Your task to perform on an android device: choose inbox layout in the gmail app Image 0: 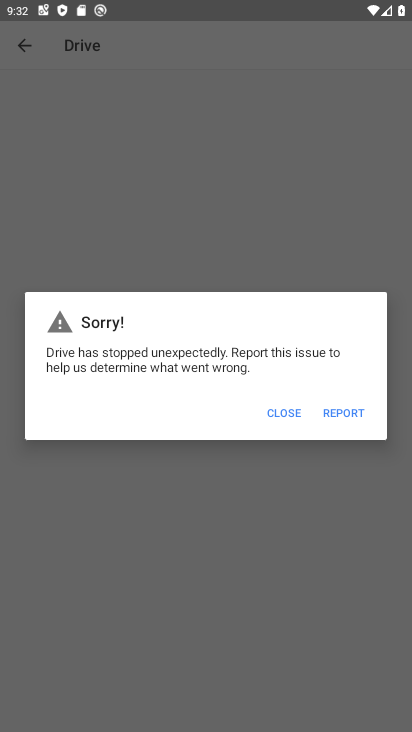
Step 0: press home button
Your task to perform on an android device: choose inbox layout in the gmail app Image 1: 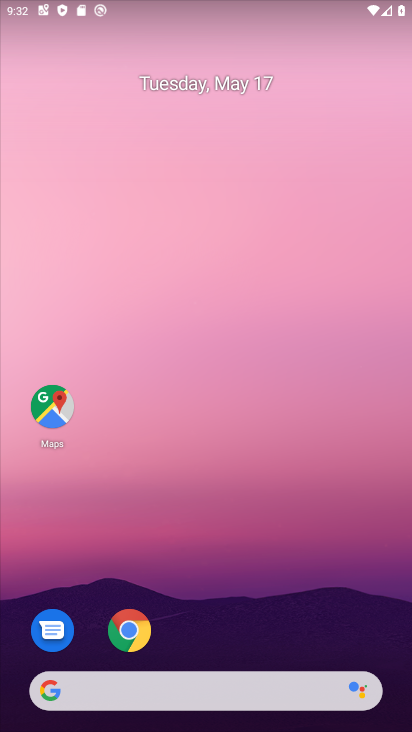
Step 1: drag from (211, 607) to (185, 410)
Your task to perform on an android device: choose inbox layout in the gmail app Image 2: 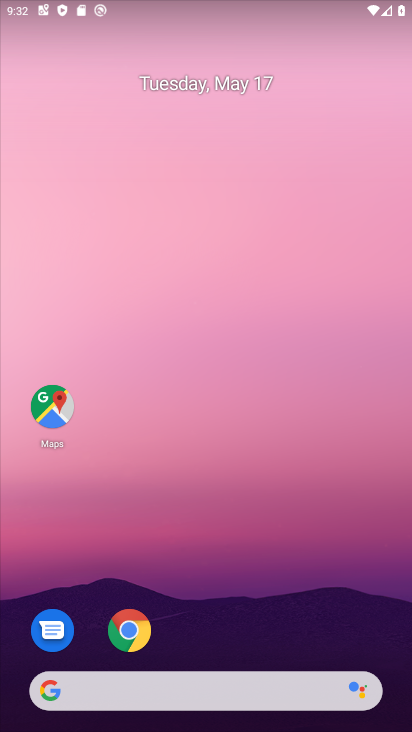
Step 2: drag from (275, 644) to (312, 173)
Your task to perform on an android device: choose inbox layout in the gmail app Image 3: 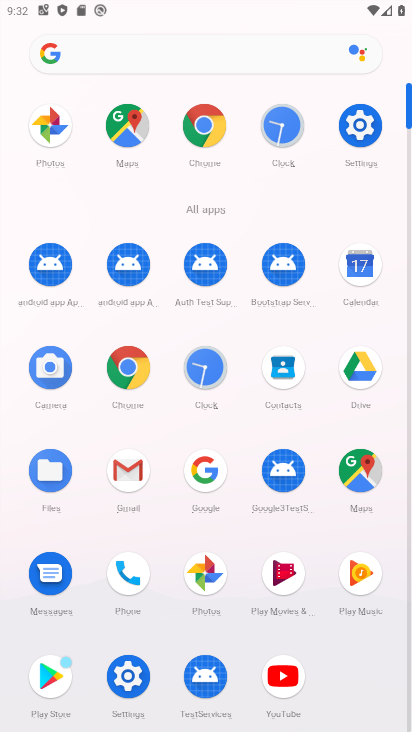
Step 3: click (120, 480)
Your task to perform on an android device: choose inbox layout in the gmail app Image 4: 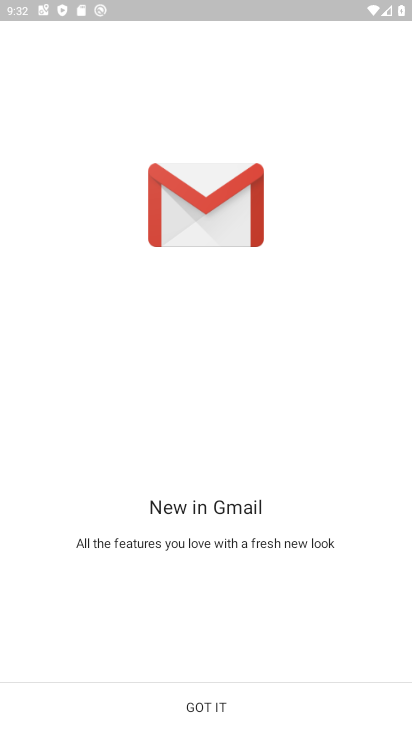
Step 4: click (233, 705)
Your task to perform on an android device: choose inbox layout in the gmail app Image 5: 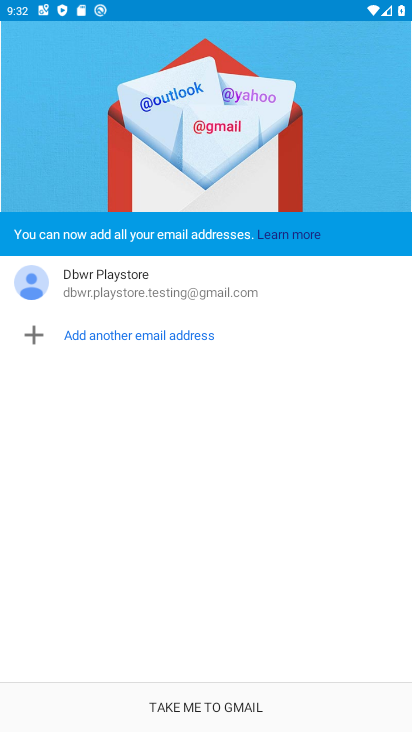
Step 5: click (202, 709)
Your task to perform on an android device: choose inbox layout in the gmail app Image 6: 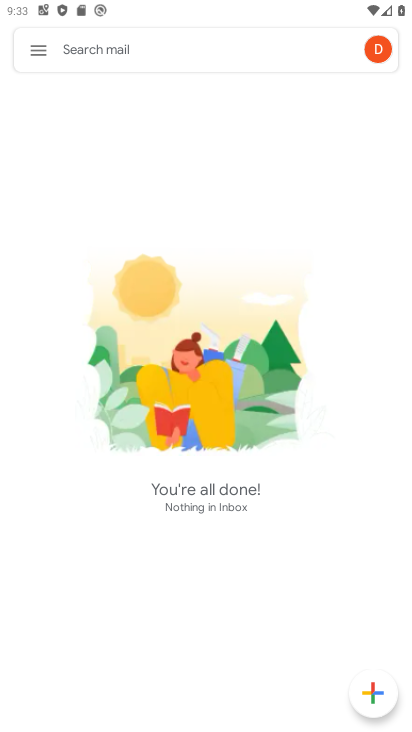
Step 6: click (36, 49)
Your task to perform on an android device: choose inbox layout in the gmail app Image 7: 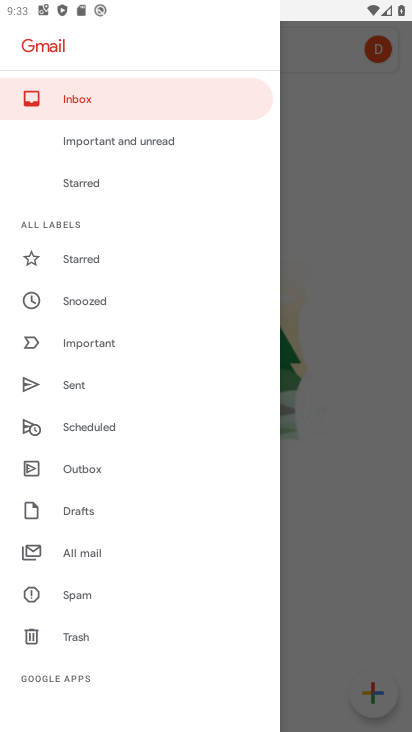
Step 7: drag from (119, 645) to (124, 410)
Your task to perform on an android device: choose inbox layout in the gmail app Image 8: 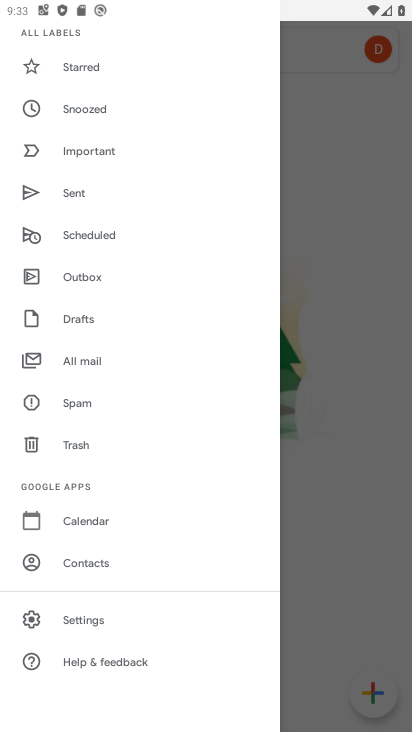
Step 8: click (83, 621)
Your task to perform on an android device: choose inbox layout in the gmail app Image 9: 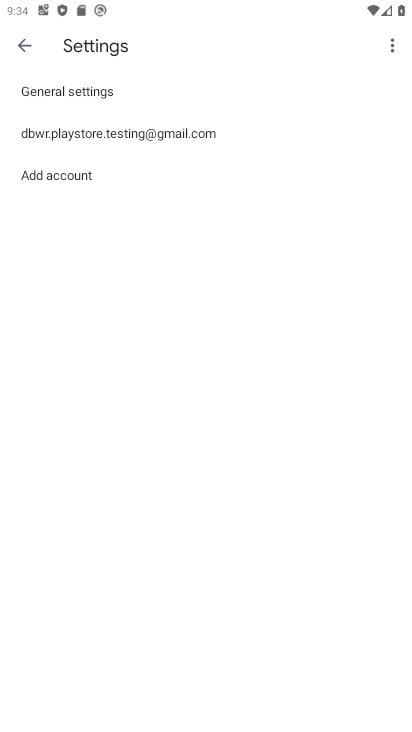
Step 9: click (191, 135)
Your task to perform on an android device: choose inbox layout in the gmail app Image 10: 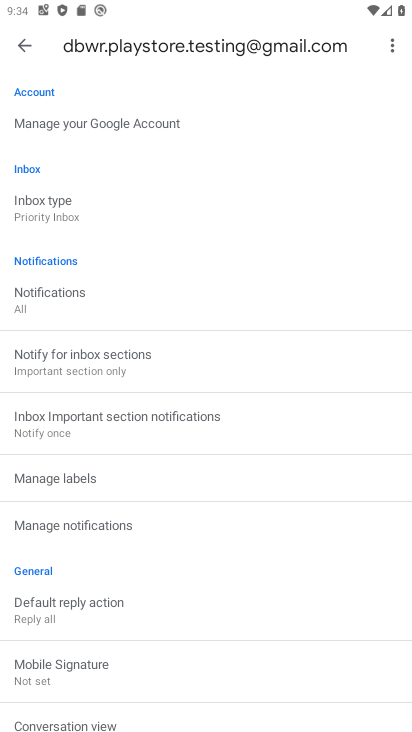
Step 10: click (86, 216)
Your task to perform on an android device: choose inbox layout in the gmail app Image 11: 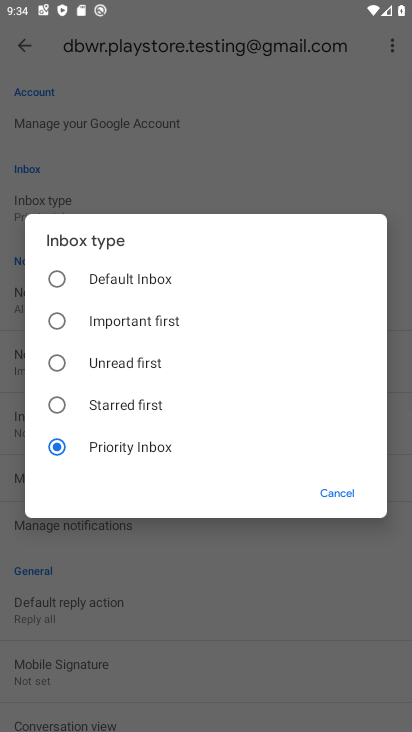
Step 11: click (50, 277)
Your task to perform on an android device: choose inbox layout in the gmail app Image 12: 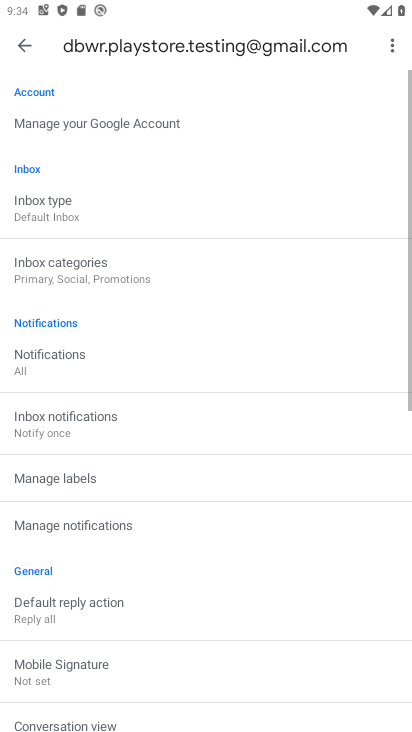
Step 12: task complete